Your task to perform on an android device: Search for "razer kraken" on walmart, select the first entry, and add it to the cart. Image 0: 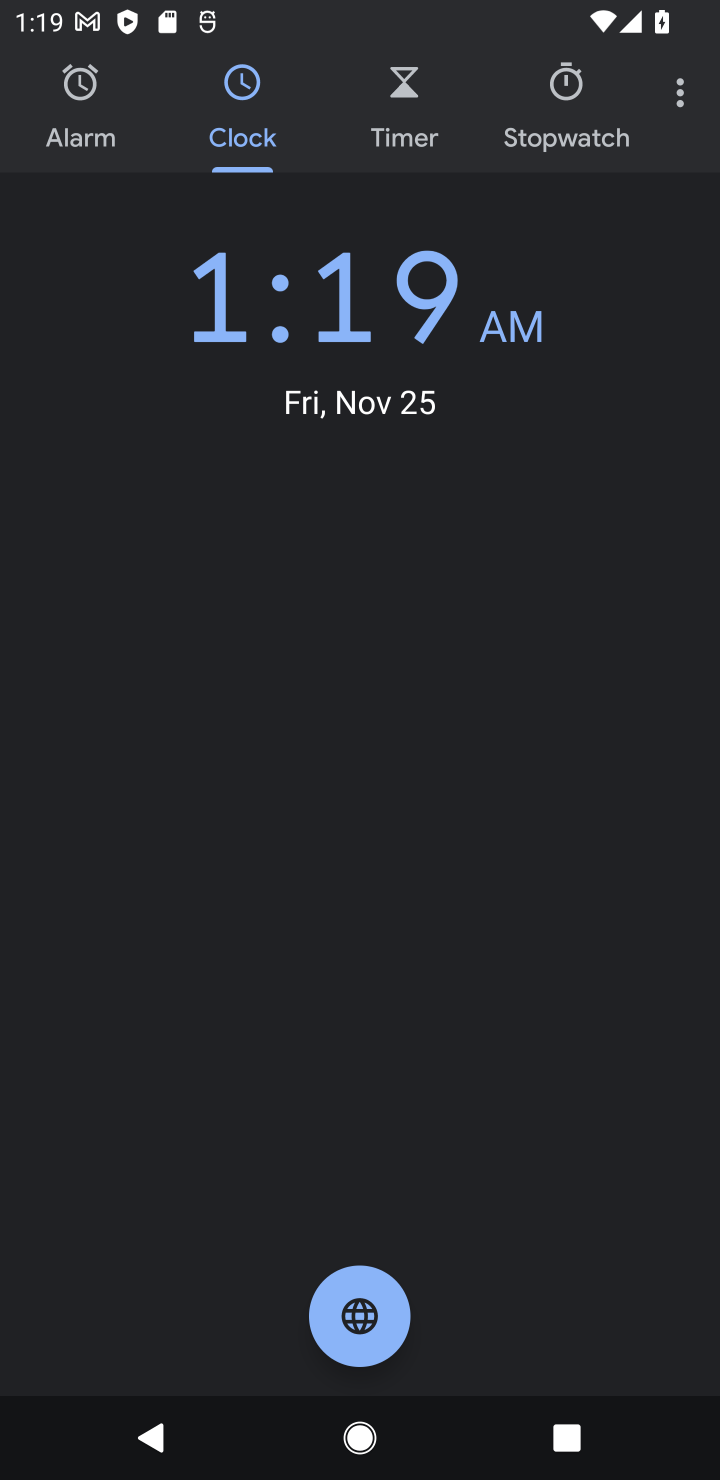
Step 0: task complete